Your task to perform on an android device: turn on notifications settings in the gmail app Image 0: 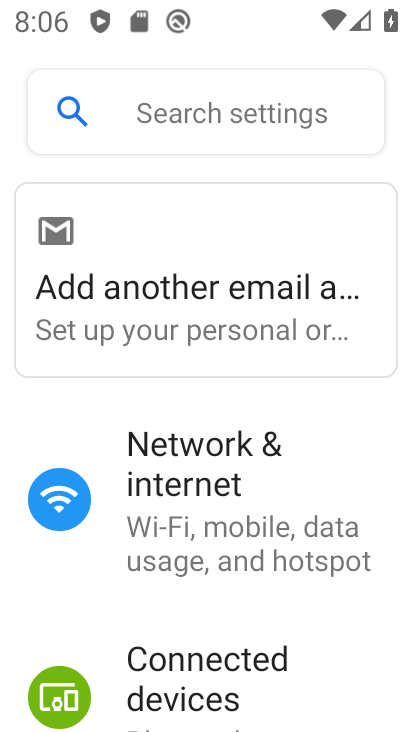
Step 0: press home button
Your task to perform on an android device: turn on notifications settings in the gmail app Image 1: 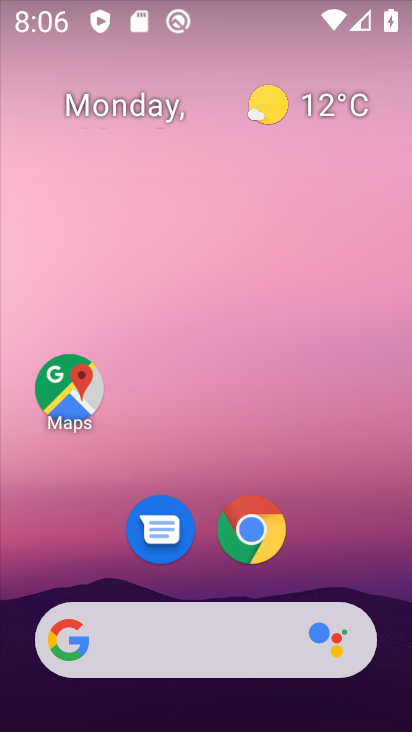
Step 1: drag from (200, 611) to (187, 50)
Your task to perform on an android device: turn on notifications settings in the gmail app Image 2: 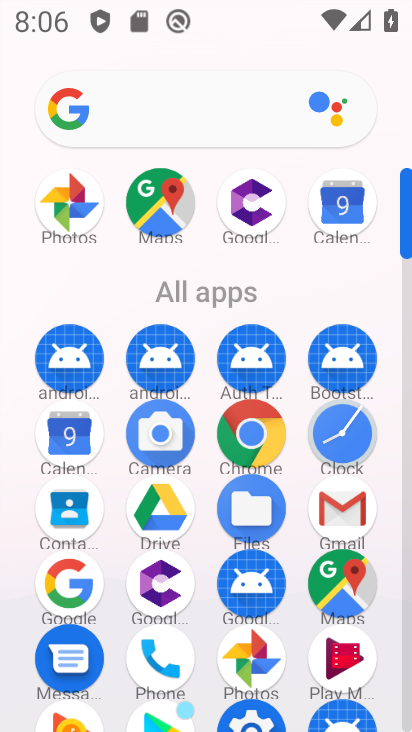
Step 2: click (329, 502)
Your task to perform on an android device: turn on notifications settings in the gmail app Image 3: 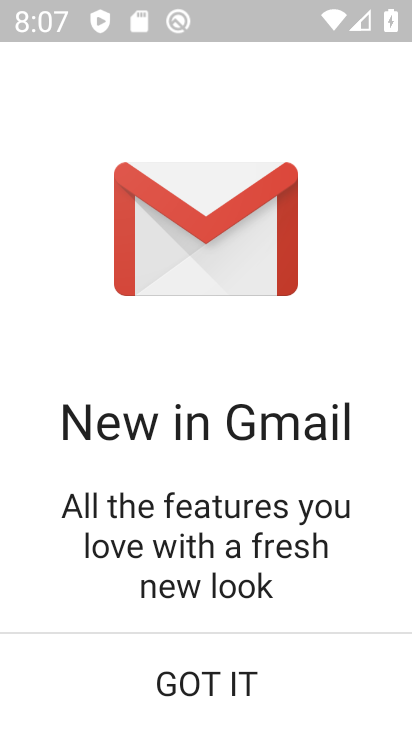
Step 3: click (199, 700)
Your task to perform on an android device: turn on notifications settings in the gmail app Image 4: 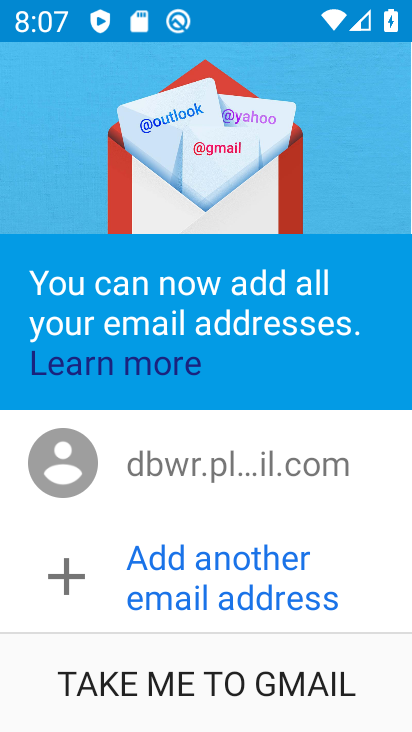
Step 4: click (218, 685)
Your task to perform on an android device: turn on notifications settings in the gmail app Image 5: 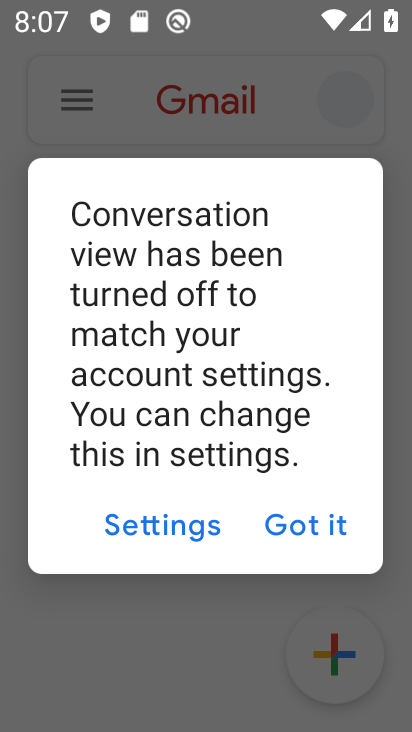
Step 5: click (278, 517)
Your task to perform on an android device: turn on notifications settings in the gmail app Image 6: 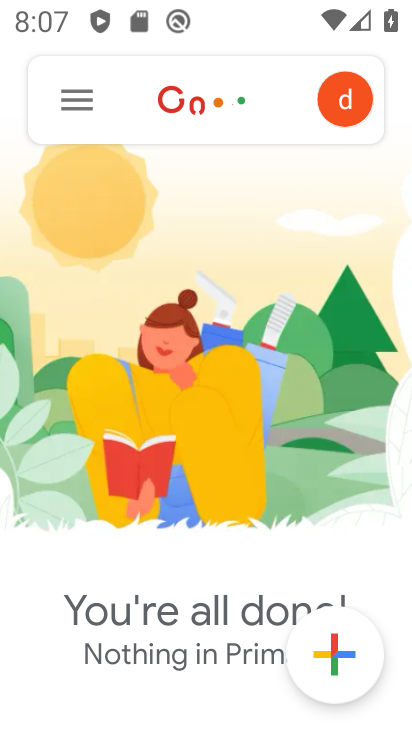
Step 6: click (65, 108)
Your task to perform on an android device: turn on notifications settings in the gmail app Image 7: 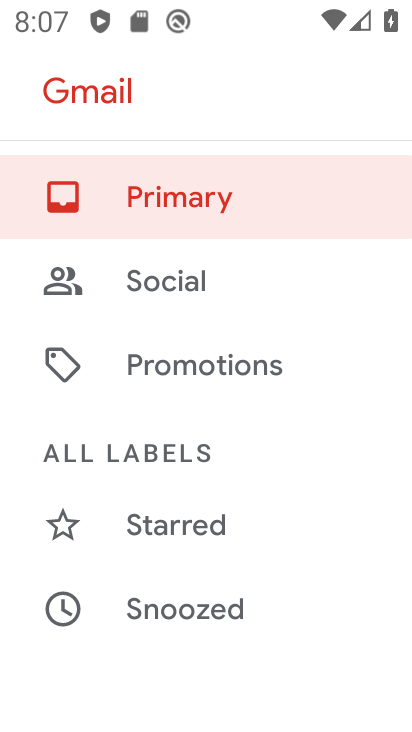
Step 7: drag from (193, 546) to (164, 118)
Your task to perform on an android device: turn on notifications settings in the gmail app Image 8: 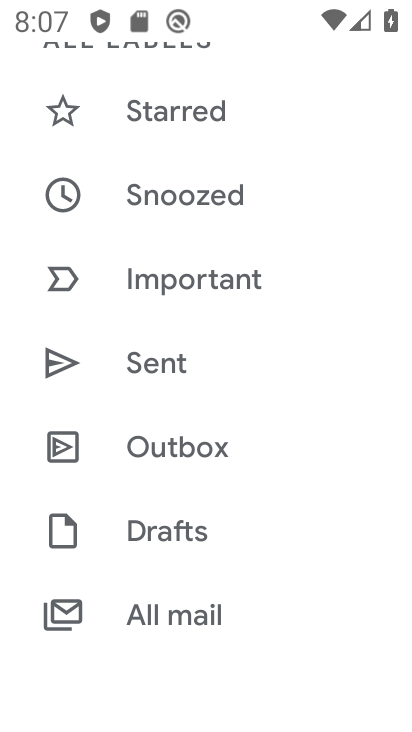
Step 8: drag from (207, 616) to (128, 151)
Your task to perform on an android device: turn on notifications settings in the gmail app Image 9: 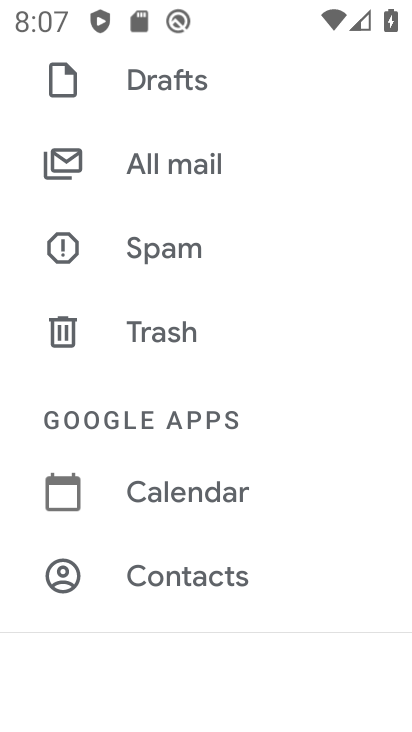
Step 9: drag from (178, 537) to (57, 0)
Your task to perform on an android device: turn on notifications settings in the gmail app Image 10: 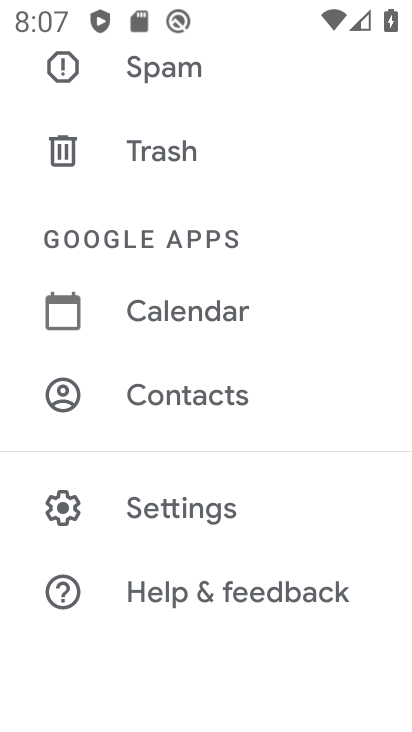
Step 10: click (150, 487)
Your task to perform on an android device: turn on notifications settings in the gmail app Image 11: 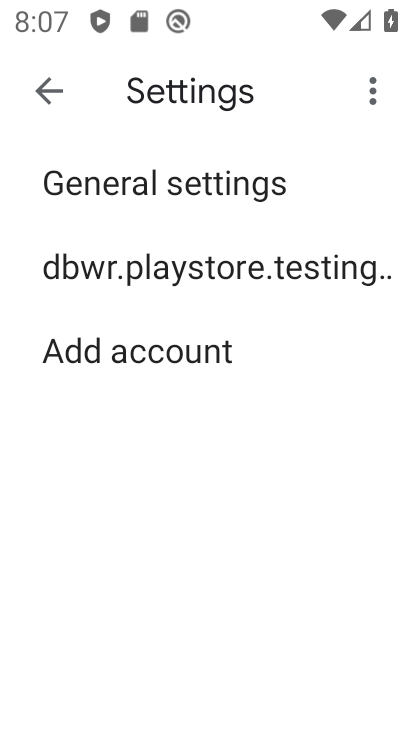
Step 11: click (230, 265)
Your task to perform on an android device: turn on notifications settings in the gmail app Image 12: 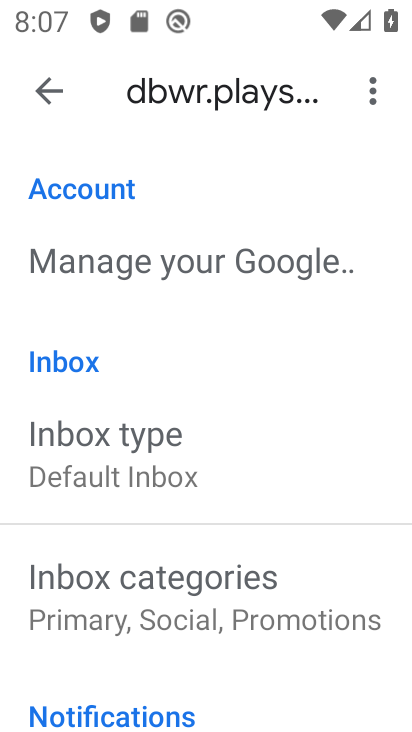
Step 12: drag from (251, 612) to (217, 70)
Your task to perform on an android device: turn on notifications settings in the gmail app Image 13: 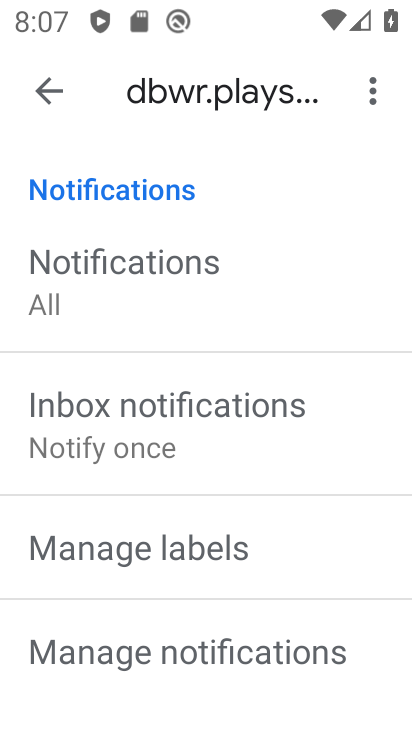
Step 13: drag from (201, 665) to (176, 349)
Your task to perform on an android device: turn on notifications settings in the gmail app Image 14: 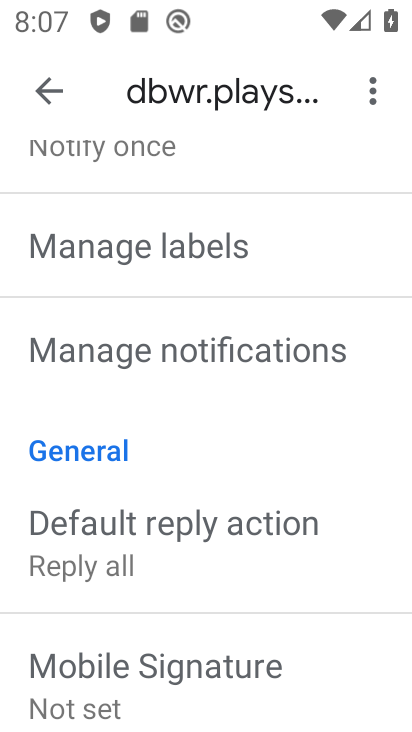
Step 14: click (220, 368)
Your task to perform on an android device: turn on notifications settings in the gmail app Image 15: 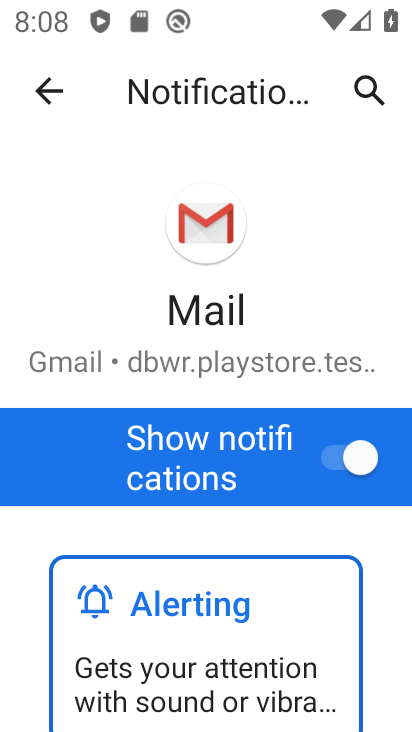
Step 15: task complete